Your task to perform on an android device: turn off notifications in google photos Image 0: 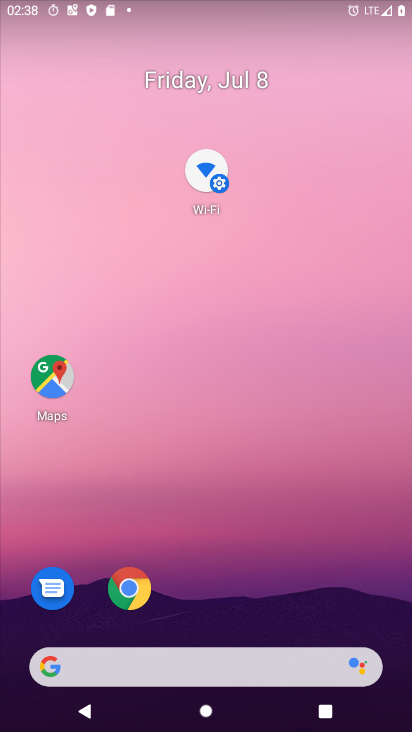
Step 0: drag from (192, 575) to (400, 525)
Your task to perform on an android device: turn off notifications in google photos Image 1: 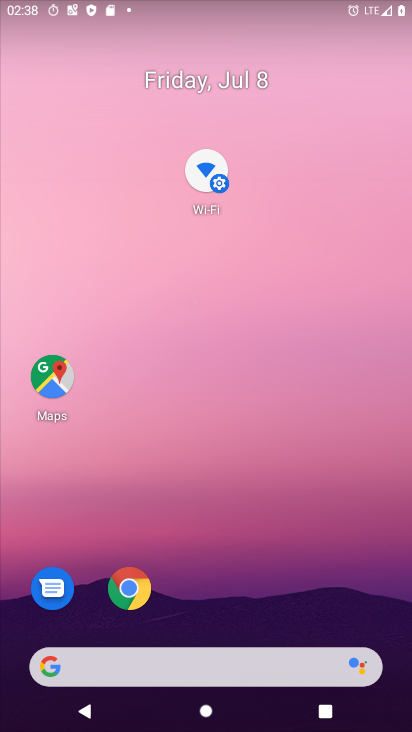
Step 1: drag from (198, 591) to (163, 209)
Your task to perform on an android device: turn off notifications in google photos Image 2: 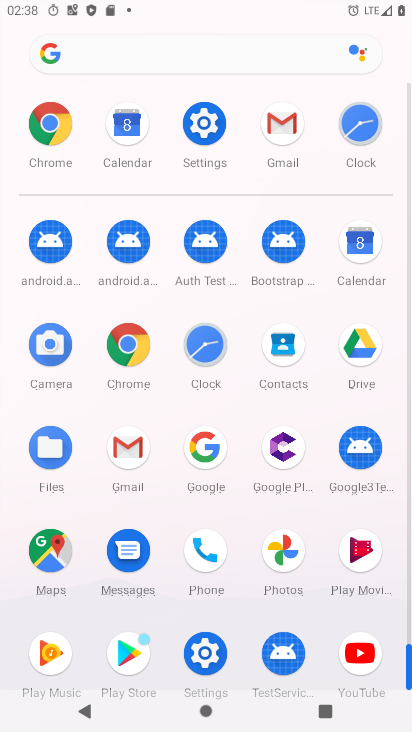
Step 2: click (285, 560)
Your task to perform on an android device: turn off notifications in google photos Image 3: 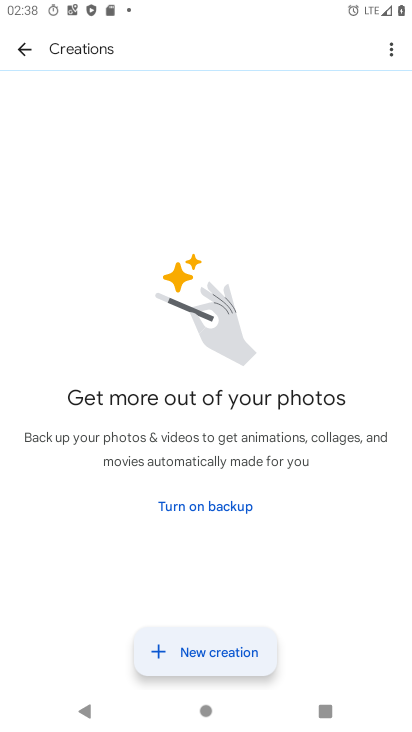
Step 3: drag from (213, 466) to (194, 259)
Your task to perform on an android device: turn off notifications in google photos Image 4: 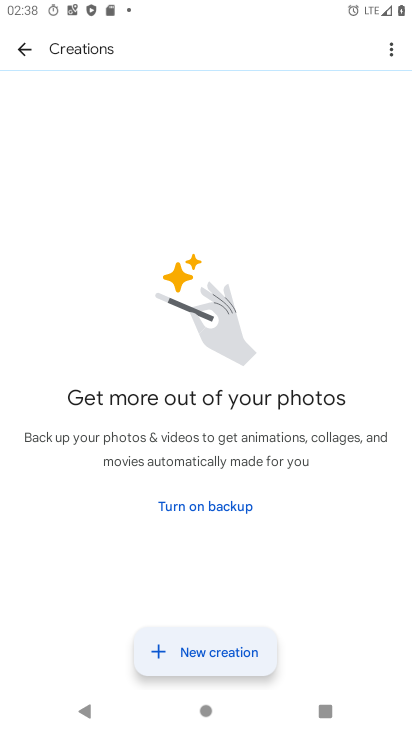
Step 4: click (20, 45)
Your task to perform on an android device: turn off notifications in google photos Image 5: 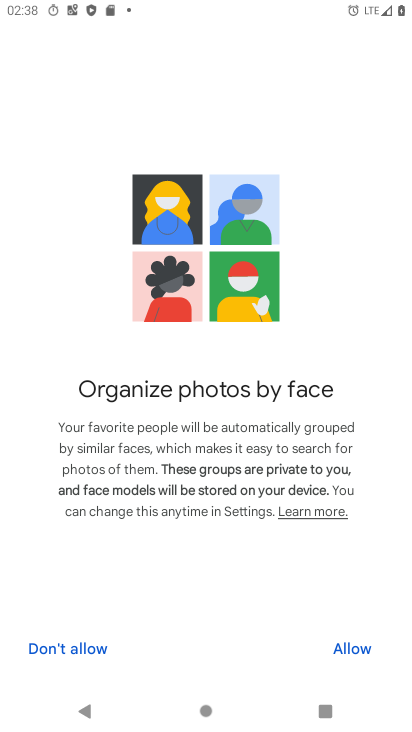
Step 5: click (71, 647)
Your task to perform on an android device: turn off notifications in google photos Image 6: 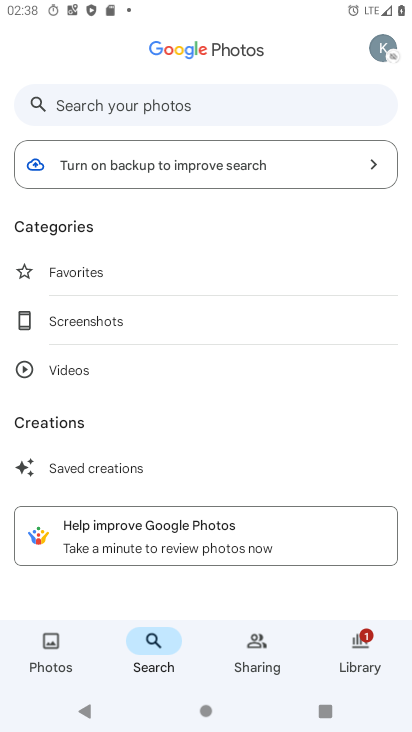
Step 6: click (391, 52)
Your task to perform on an android device: turn off notifications in google photos Image 7: 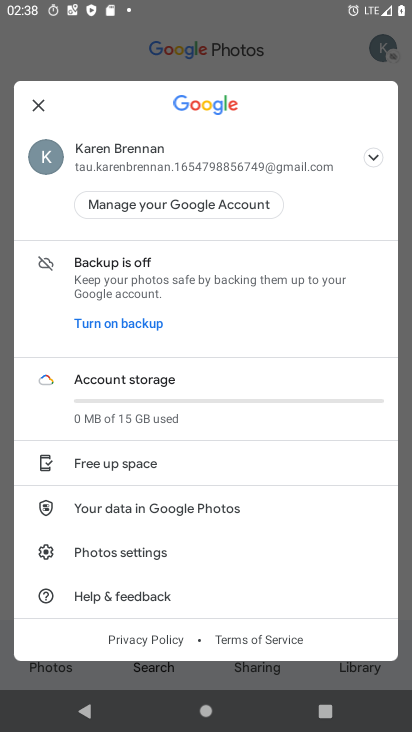
Step 7: click (129, 556)
Your task to perform on an android device: turn off notifications in google photos Image 8: 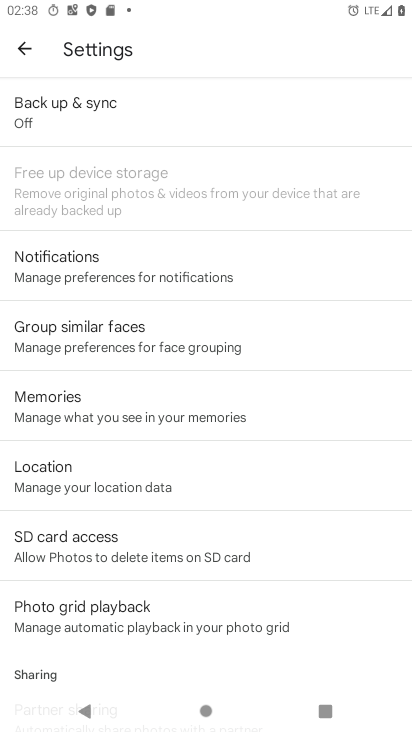
Step 8: drag from (140, 273) to (174, 44)
Your task to perform on an android device: turn off notifications in google photos Image 9: 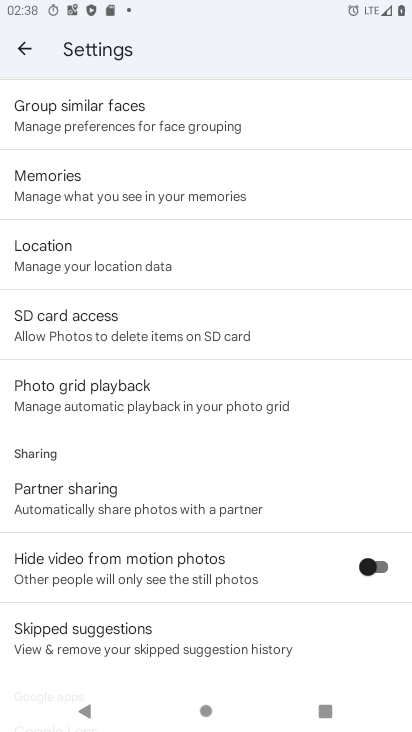
Step 9: drag from (135, 221) to (238, 557)
Your task to perform on an android device: turn off notifications in google photos Image 10: 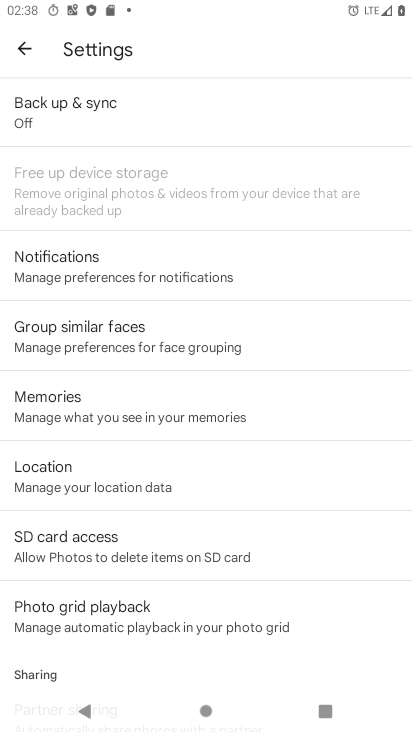
Step 10: click (102, 258)
Your task to perform on an android device: turn off notifications in google photos Image 11: 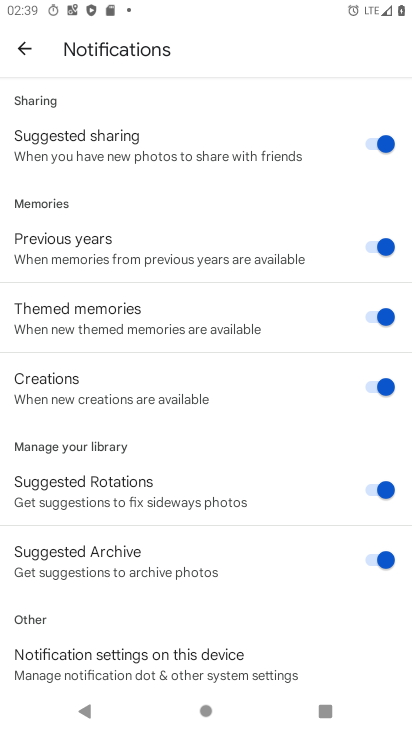
Step 11: drag from (162, 553) to (157, 157)
Your task to perform on an android device: turn off notifications in google photos Image 12: 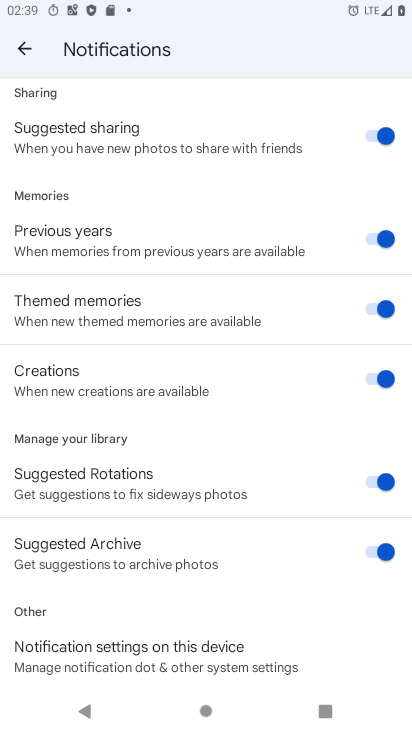
Step 12: click (144, 650)
Your task to perform on an android device: turn off notifications in google photos Image 13: 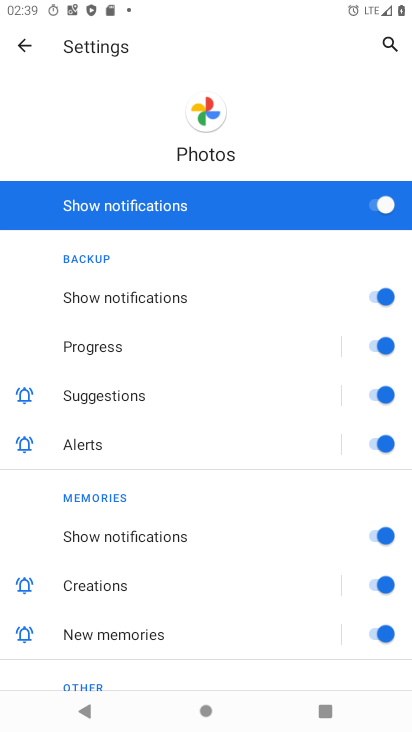
Step 13: click (378, 208)
Your task to perform on an android device: turn off notifications in google photos Image 14: 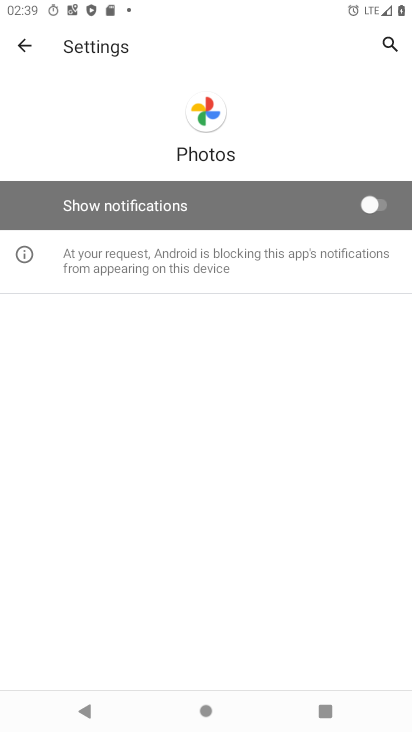
Step 14: task complete